Your task to perform on an android device: turn off notifications in google photos Image 0: 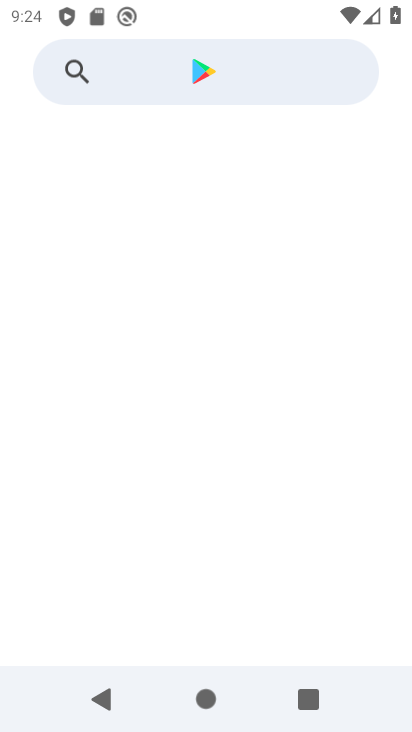
Step 0: drag from (343, 549) to (376, 225)
Your task to perform on an android device: turn off notifications in google photos Image 1: 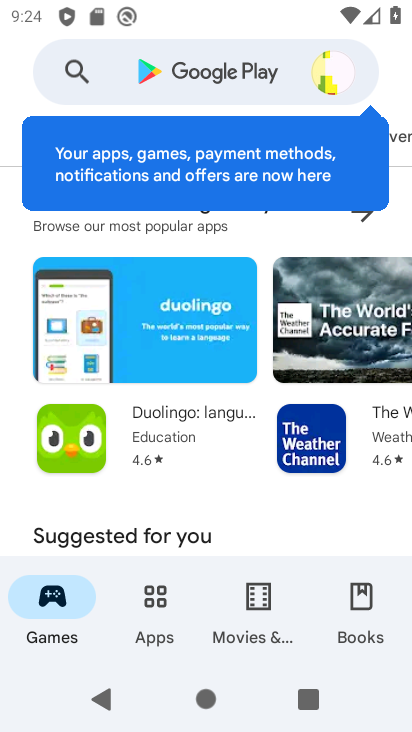
Step 1: press home button
Your task to perform on an android device: turn off notifications in google photos Image 2: 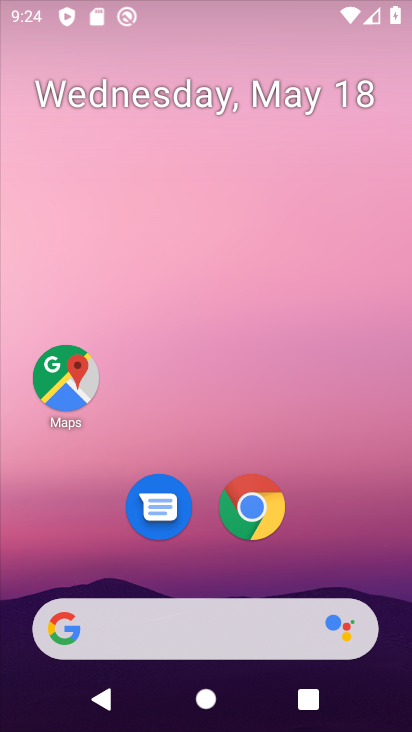
Step 2: drag from (337, 494) to (276, 146)
Your task to perform on an android device: turn off notifications in google photos Image 3: 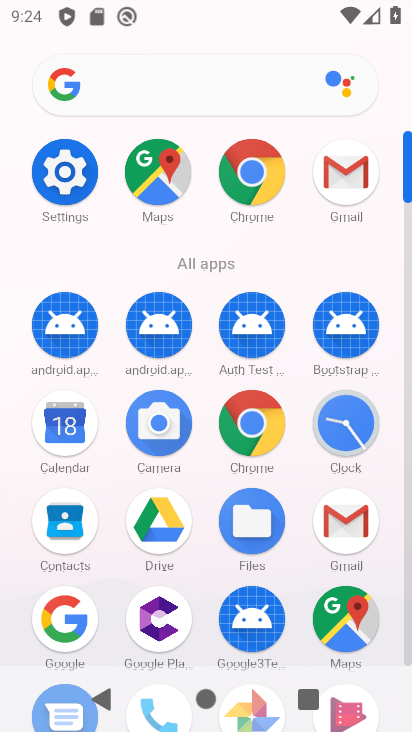
Step 3: drag from (291, 568) to (322, 376)
Your task to perform on an android device: turn off notifications in google photos Image 4: 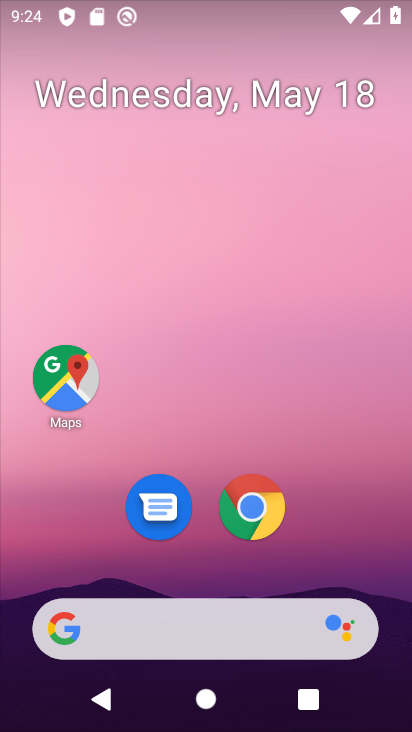
Step 4: drag from (385, 557) to (297, 32)
Your task to perform on an android device: turn off notifications in google photos Image 5: 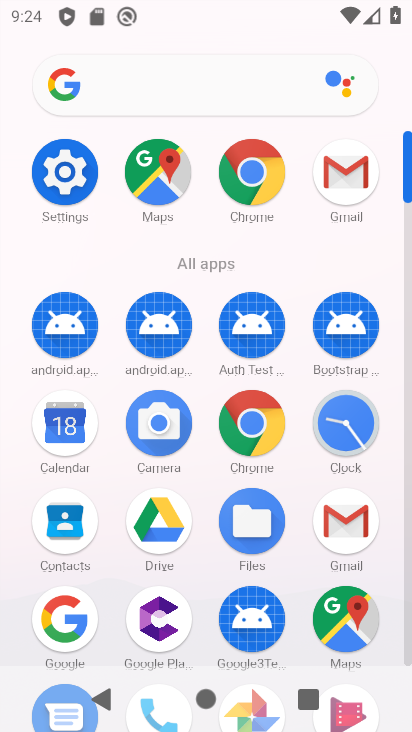
Step 5: drag from (295, 566) to (326, 273)
Your task to perform on an android device: turn off notifications in google photos Image 6: 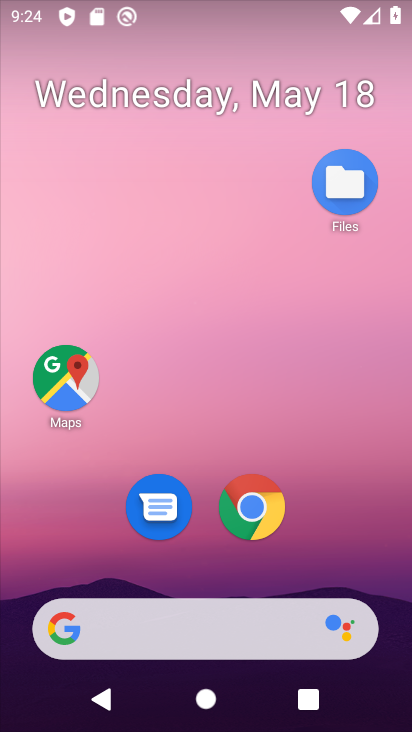
Step 6: drag from (296, 557) to (274, 231)
Your task to perform on an android device: turn off notifications in google photos Image 7: 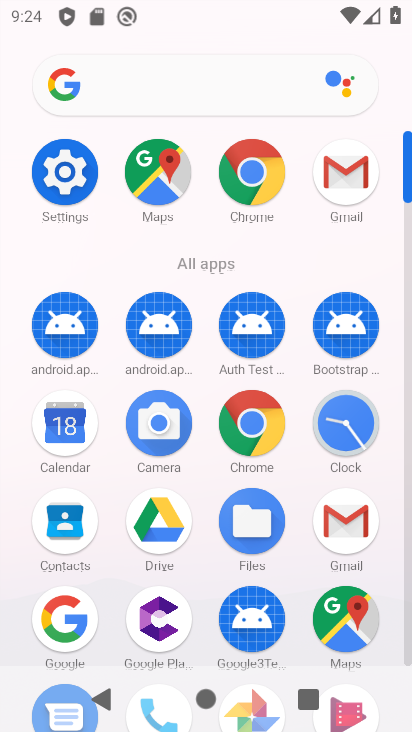
Step 7: drag from (291, 593) to (285, 340)
Your task to perform on an android device: turn off notifications in google photos Image 8: 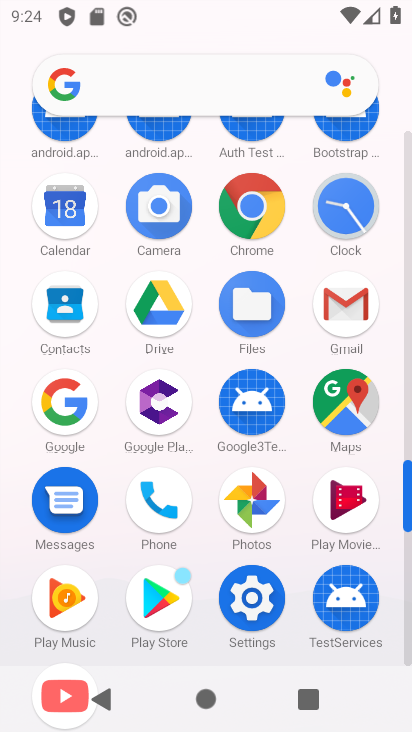
Step 8: click (266, 515)
Your task to perform on an android device: turn off notifications in google photos Image 9: 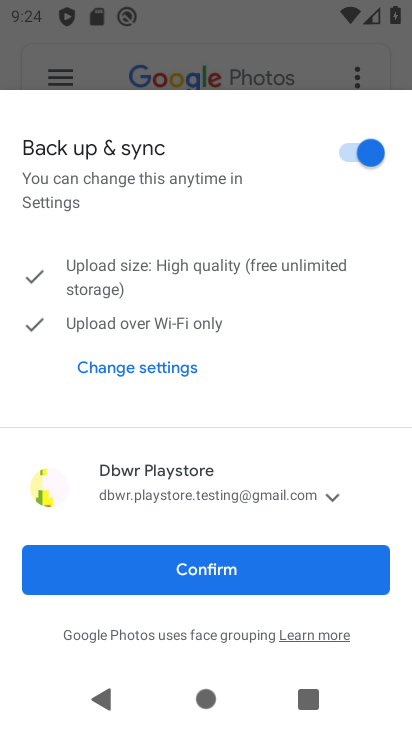
Step 9: click (250, 553)
Your task to perform on an android device: turn off notifications in google photos Image 10: 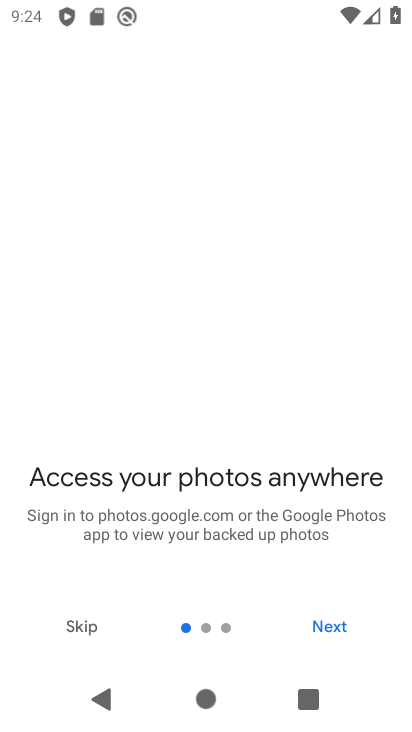
Step 10: click (341, 627)
Your task to perform on an android device: turn off notifications in google photos Image 11: 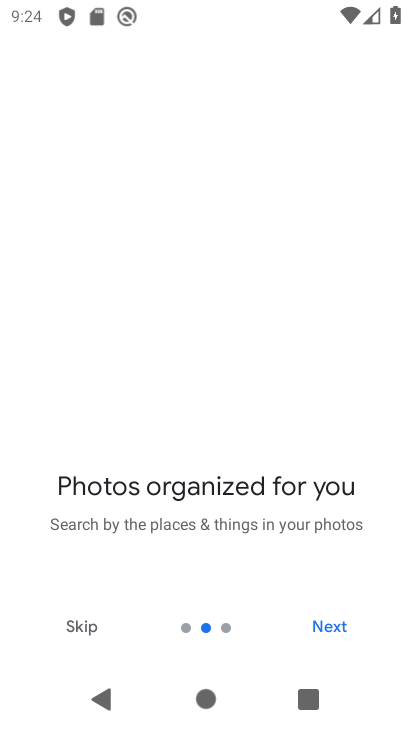
Step 11: click (341, 627)
Your task to perform on an android device: turn off notifications in google photos Image 12: 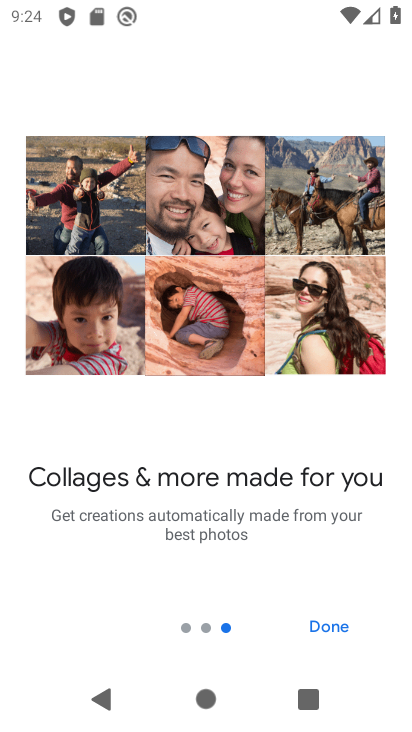
Step 12: click (341, 627)
Your task to perform on an android device: turn off notifications in google photos Image 13: 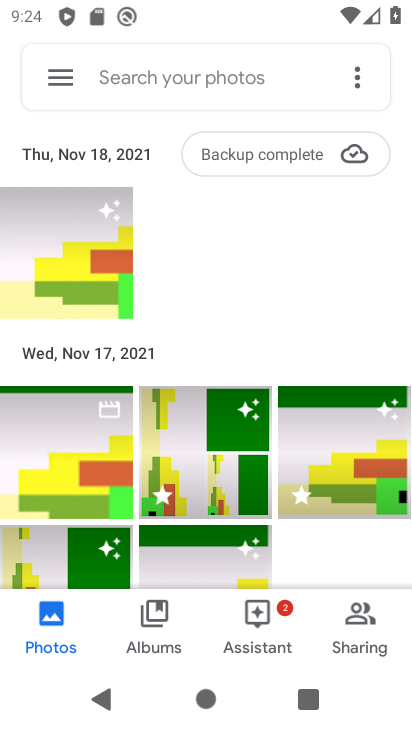
Step 13: click (73, 82)
Your task to perform on an android device: turn off notifications in google photos Image 14: 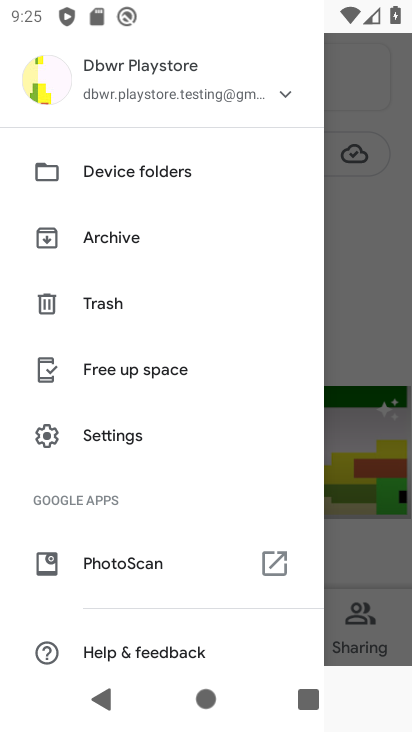
Step 14: drag from (173, 589) to (209, 206)
Your task to perform on an android device: turn off notifications in google photos Image 15: 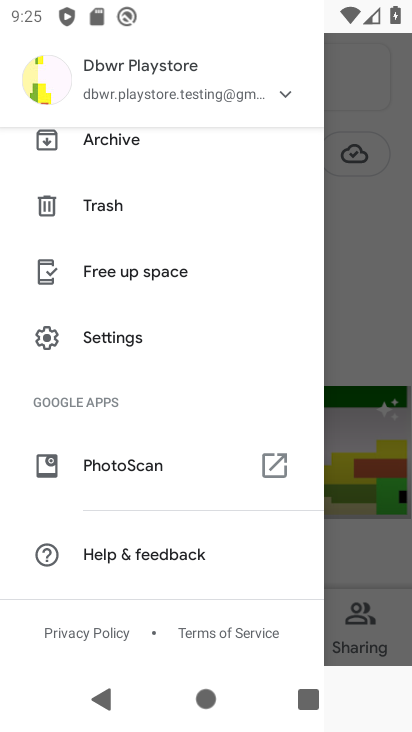
Step 15: click (110, 332)
Your task to perform on an android device: turn off notifications in google photos Image 16: 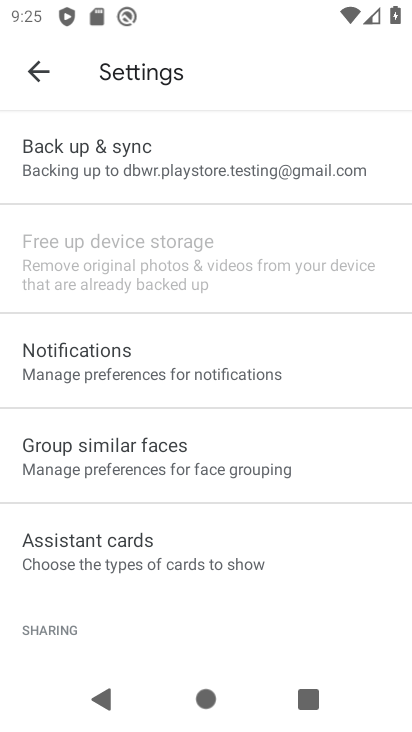
Step 16: click (207, 364)
Your task to perform on an android device: turn off notifications in google photos Image 17: 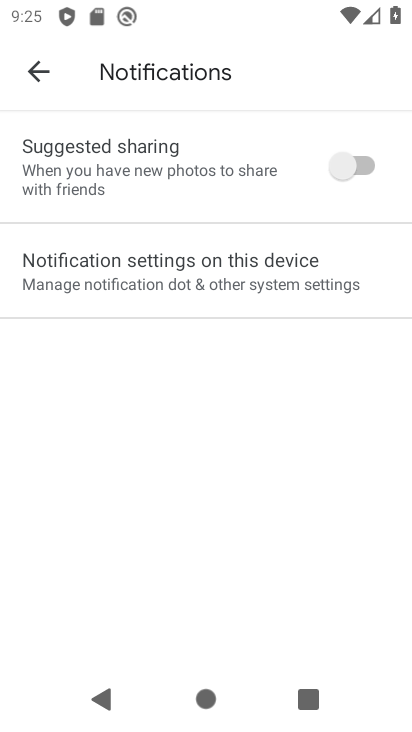
Step 17: click (272, 259)
Your task to perform on an android device: turn off notifications in google photos Image 18: 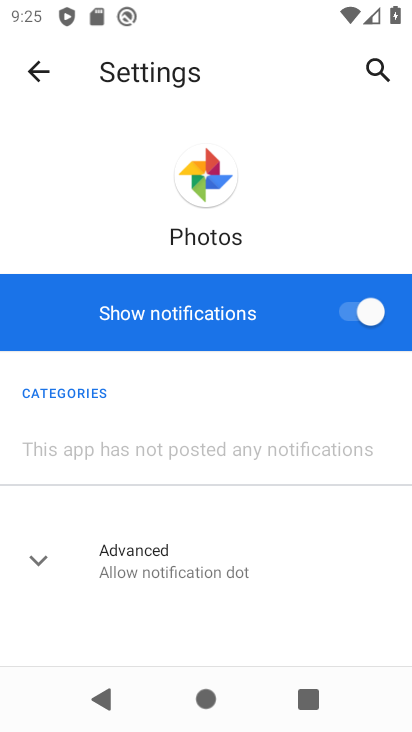
Step 18: click (359, 296)
Your task to perform on an android device: turn off notifications in google photos Image 19: 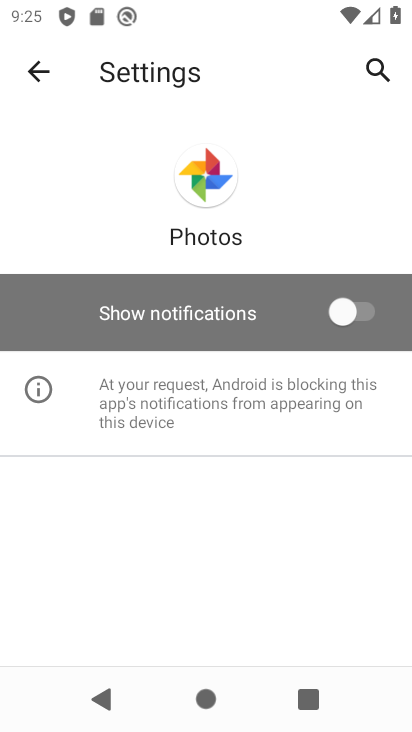
Step 19: task complete